Your task to perform on an android device: Open Google Chrome and click the shortcut for Amazon.com Image 0: 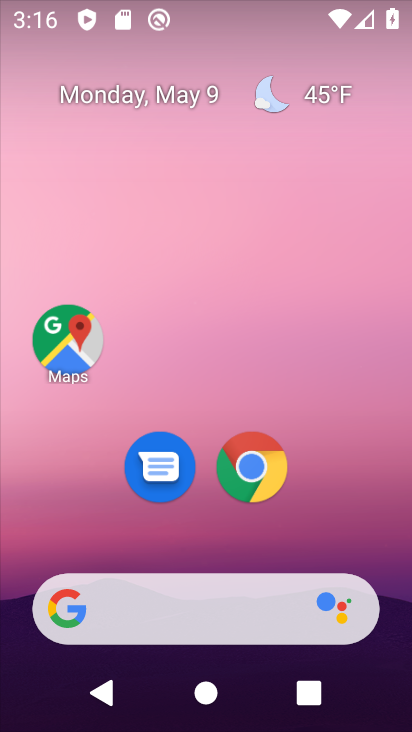
Step 0: click (261, 482)
Your task to perform on an android device: Open Google Chrome and click the shortcut for Amazon.com Image 1: 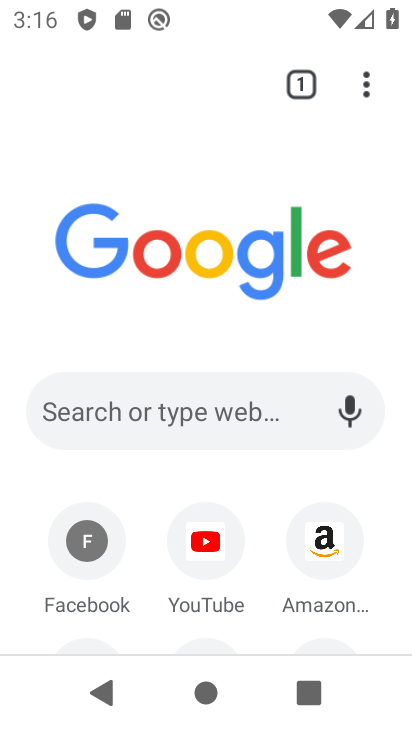
Step 1: click (350, 551)
Your task to perform on an android device: Open Google Chrome and click the shortcut for Amazon.com Image 2: 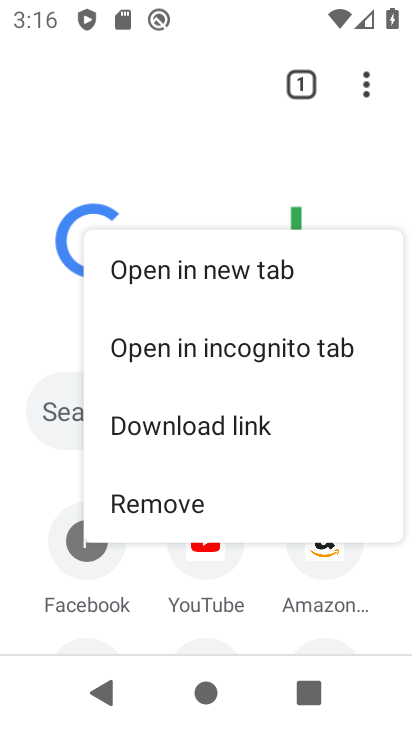
Step 2: click (321, 556)
Your task to perform on an android device: Open Google Chrome and click the shortcut for Amazon.com Image 3: 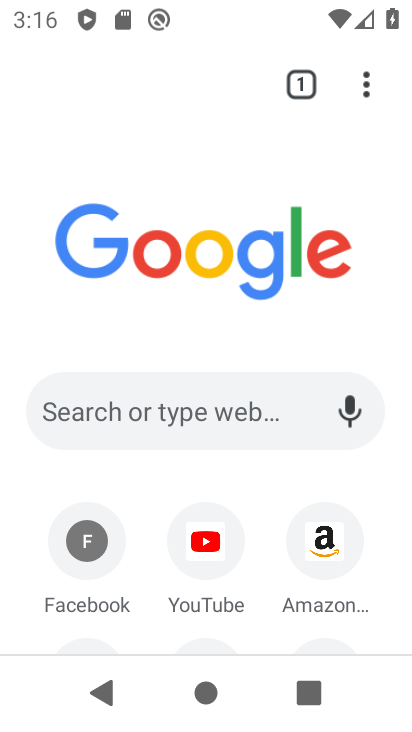
Step 3: click (322, 546)
Your task to perform on an android device: Open Google Chrome and click the shortcut for Amazon.com Image 4: 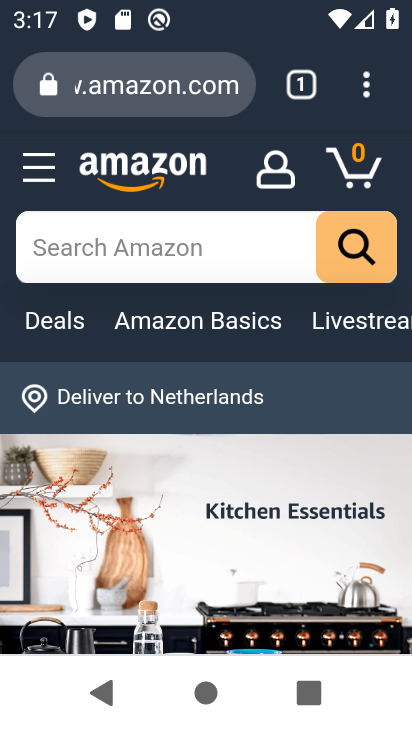
Step 4: task complete